Your task to perform on an android device: check battery use Image 0: 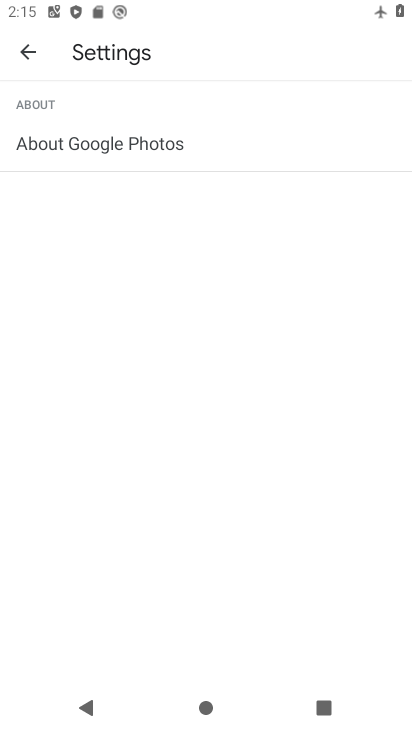
Step 0: press home button
Your task to perform on an android device: check battery use Image 1: 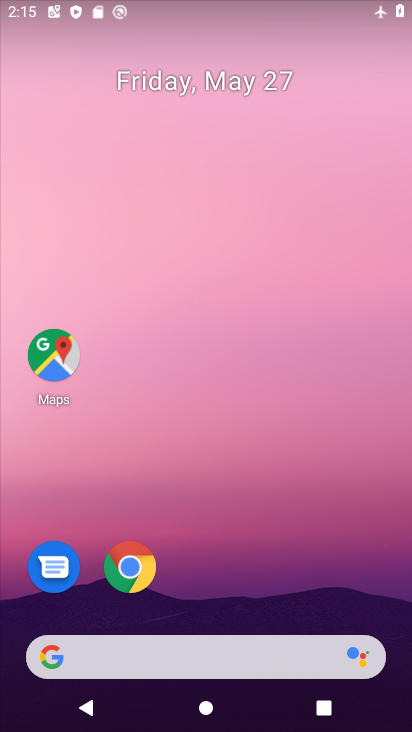
Step 1: drag from (298, 497) to (326, 113)
Your task to perform on an android device: check battery use Image 2: 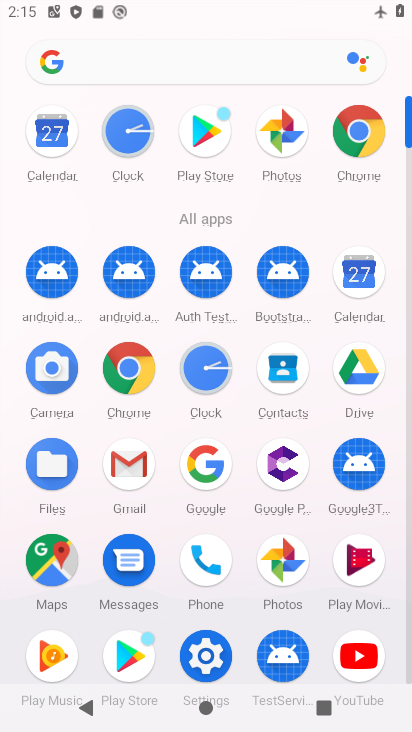
Step 2: click (202, 649)
Your task to perform on an android device: check battery use Image 3: 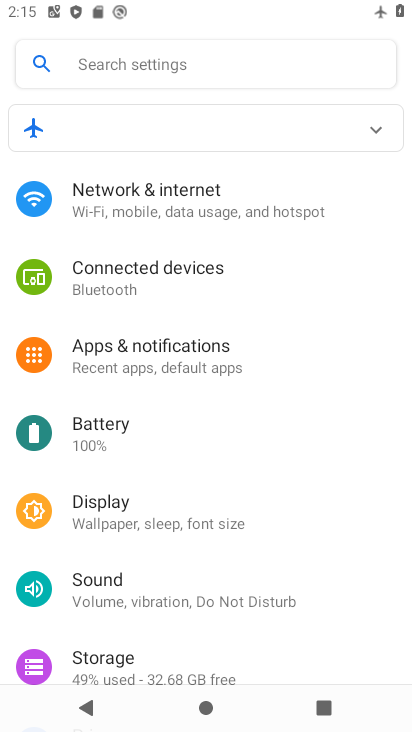
Step 3: drag from (296, 549) to (249, 197)
Your task to perform on an android device: check battery use Image 4: 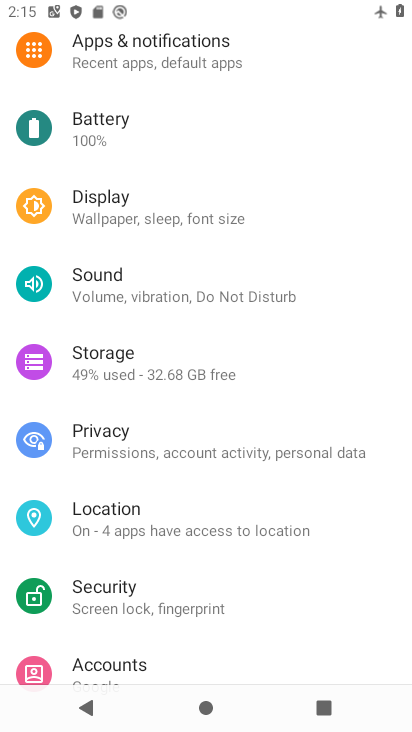
Step 4: click (91, 141)
Your task to perform on an android device: check battery use Image 5: 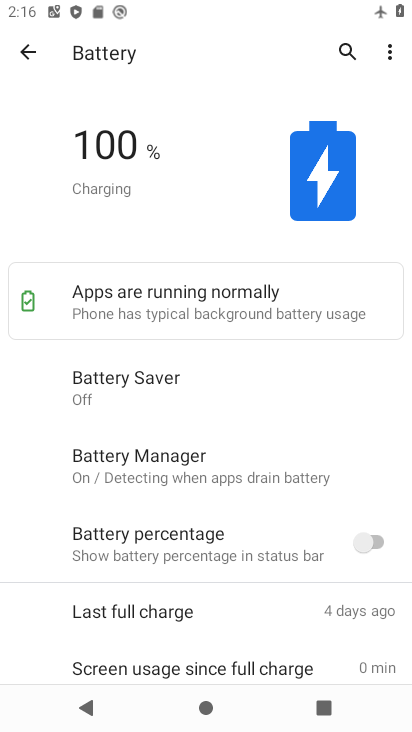
Step 5: task complete